Your task to perform on an android device: find photos in the google photos app Image 0: 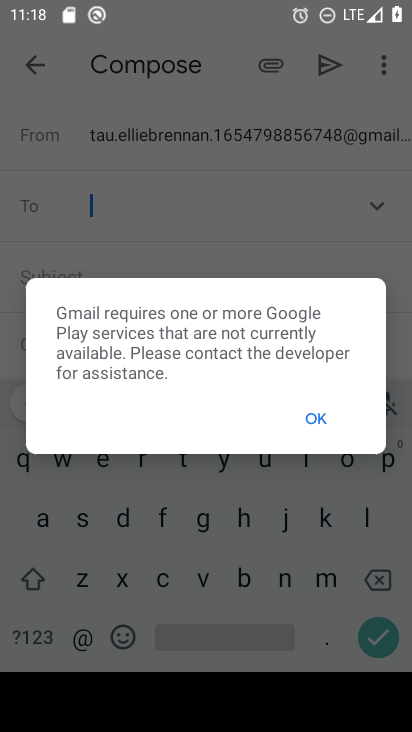
Step 0: press home button
Your task to perform on an android device: find photos in the google photos app Image 1: 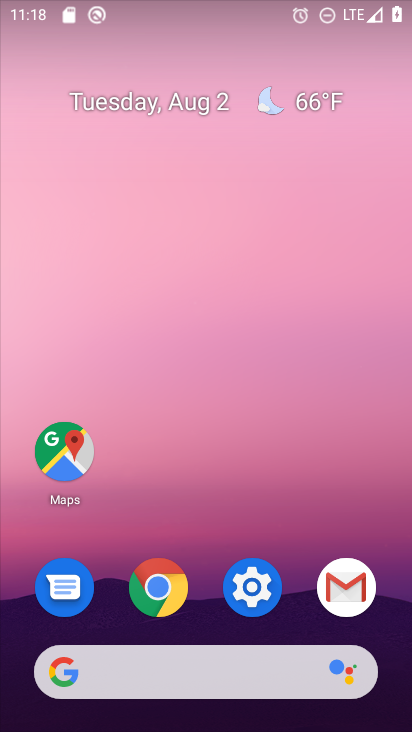
Step 1: drag from (275, 677) to (320, 273)
Your task to perform on an android device: find photos in the google photos app Image 2: 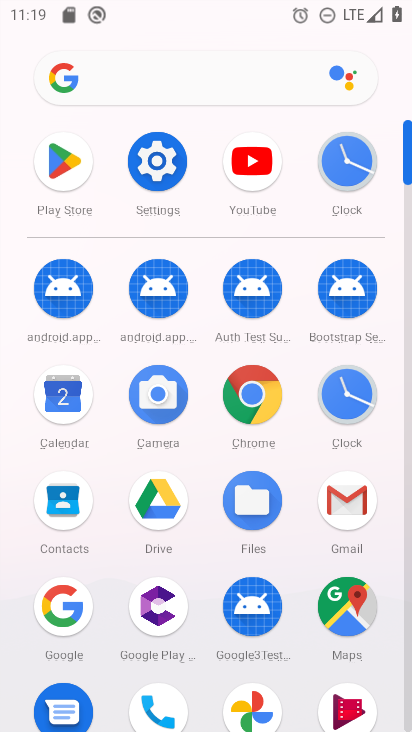
Step 2: click (246, 689)
Your task to perform on an android device: find photos in the google photos app Image 3: 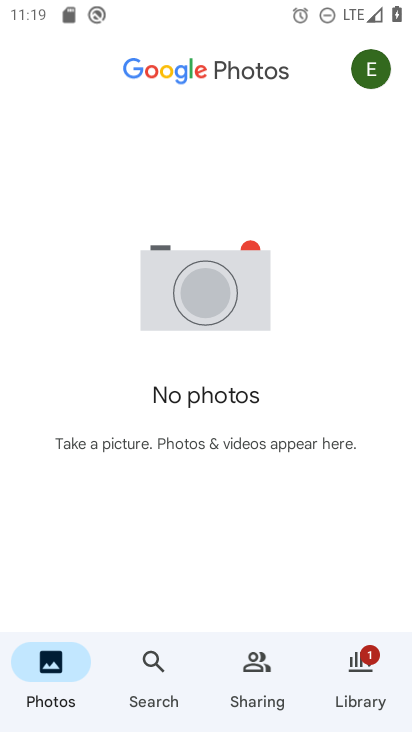
Step 3: task complete